Your task to perform on an android device: Open the calendar app, open the side menu, and click the "Day" option Image 0: 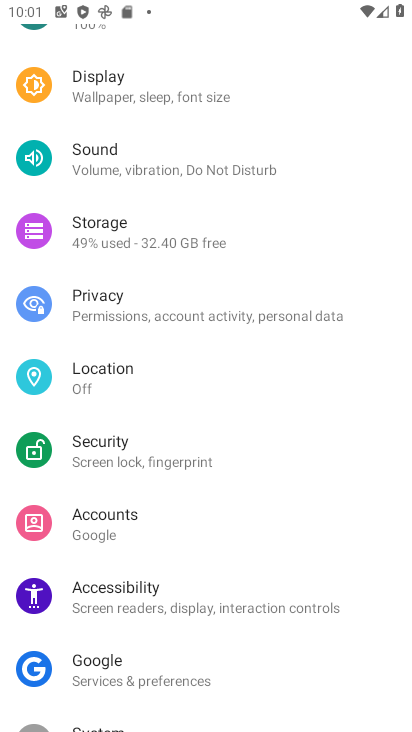
Step 0: press home button
Your task to perform on an android device: Open the calendar app, open the side menu, and click the "Day" option Image 1: 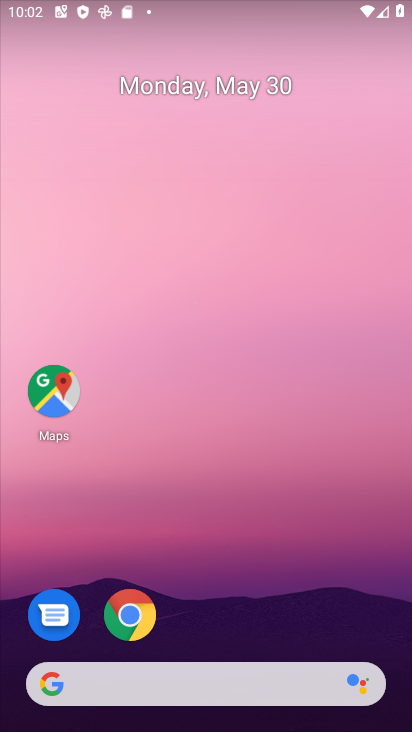
Step 1: drag from (272, 544) to (199, 17)
Your task to perform on an android device: Open the calendar app, open the side menu, and click the "Day" option Image 2: 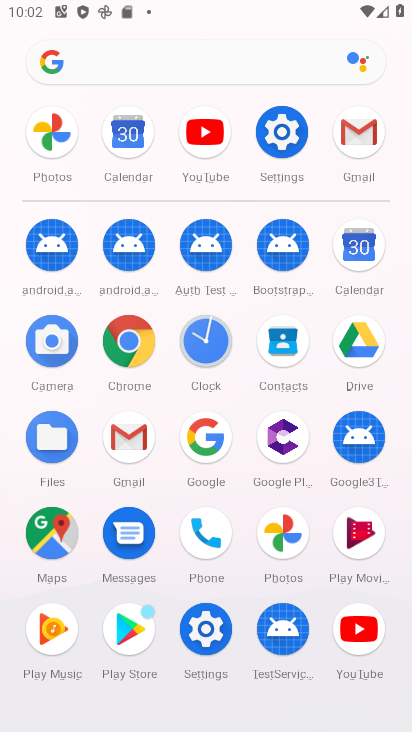
Step 2: click (362, 260)
Your task to perform on an android device: Open the calendar app, open the side menu, and click the "Day" option Image 3: 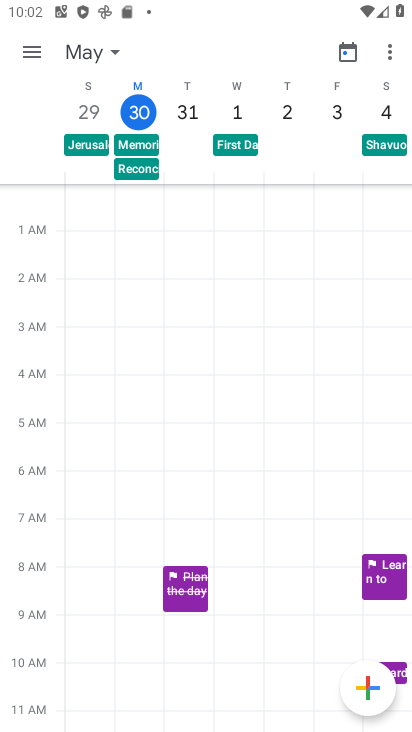
Step 3: click (31, 52)
Your task to perform on an android device: Open the calendar app, open the side menu, and click the "Day" option Image 4: 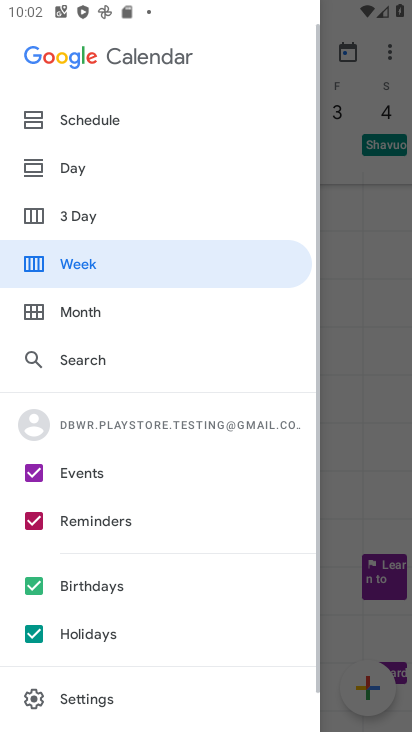
Step 4: click (103, 171)
Your task to perform on an android device: Open the calendar app, open the side menu, and click the "Day" option Image 5: 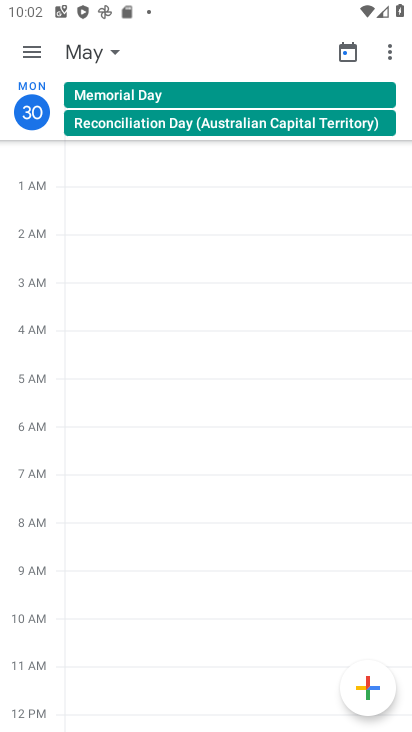
Step 5: task complete